Your task to perform on an android device: Open display settings Image 0: 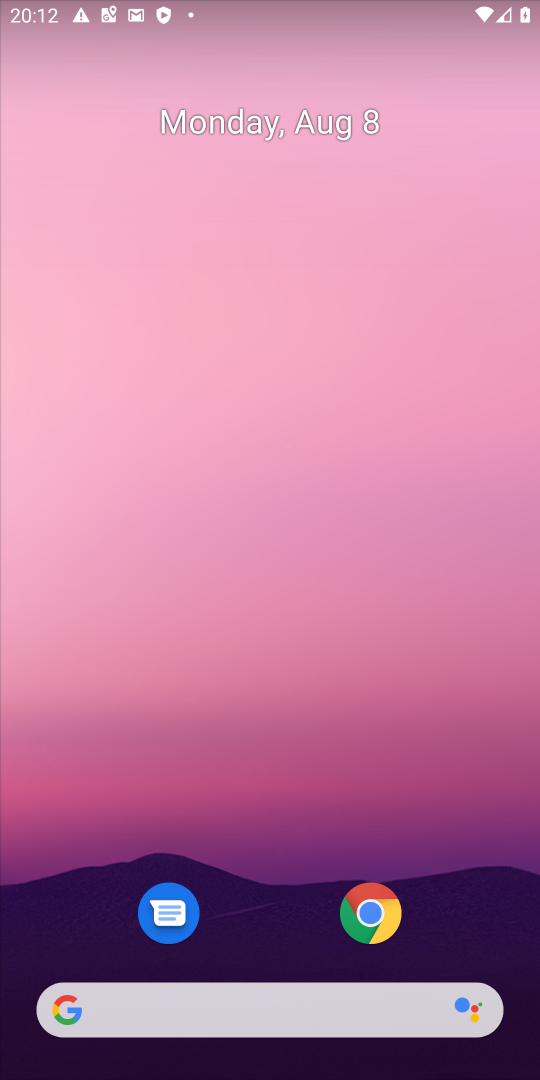
Step 0: press home button
Your task to perform on an android device: Open display settings Image 1: 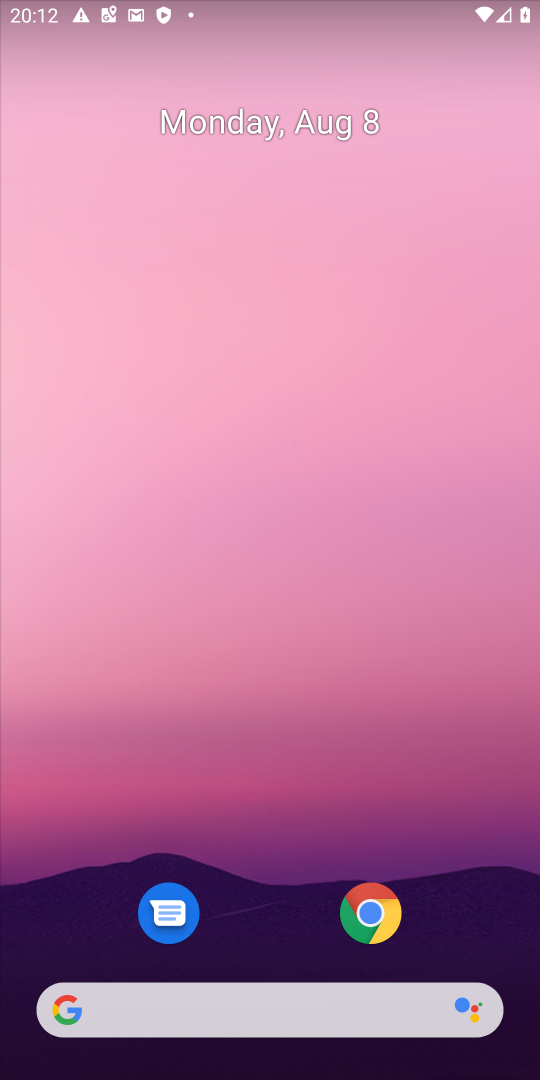
Step 1: drag from (209, 975) to (379, 281)
Your task to perform on an android device: Open display settings Image 2: 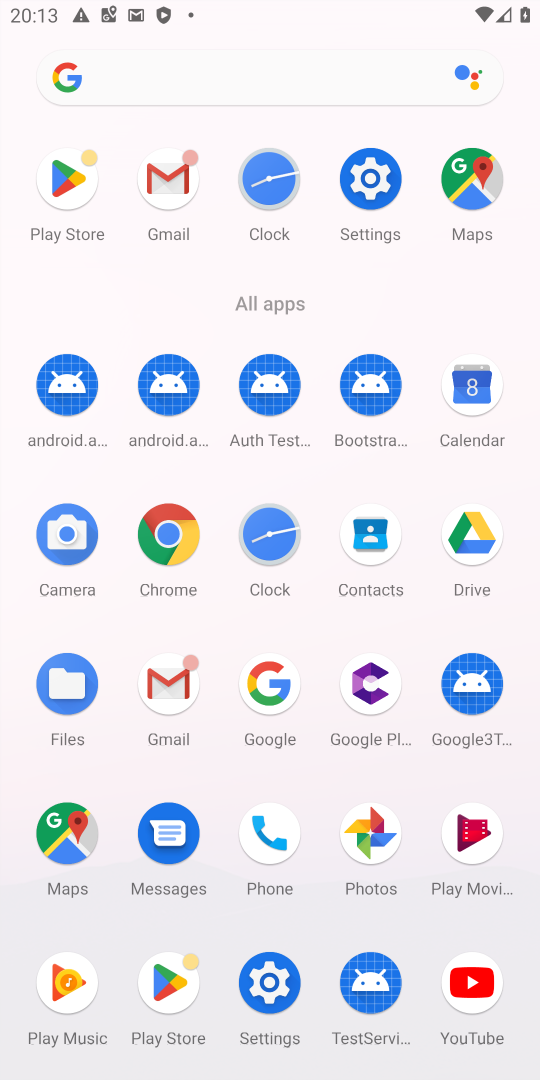
Step 2: click (248, 959)
Your task to perform on an android device: Open display settings Image 3: 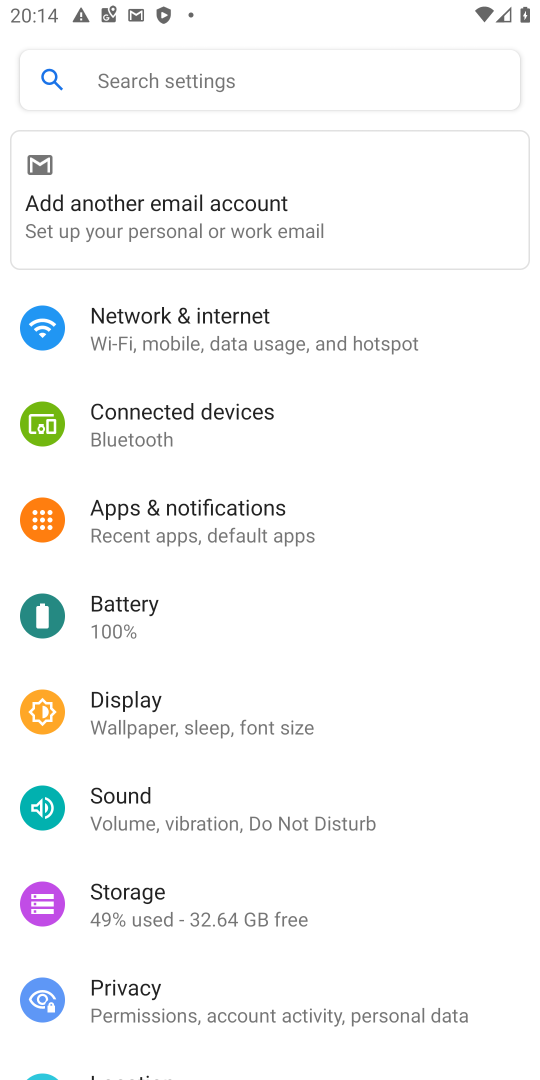
Step 3: click (148, 723)
Your task to perform on an android device: Open display settings Image 4: 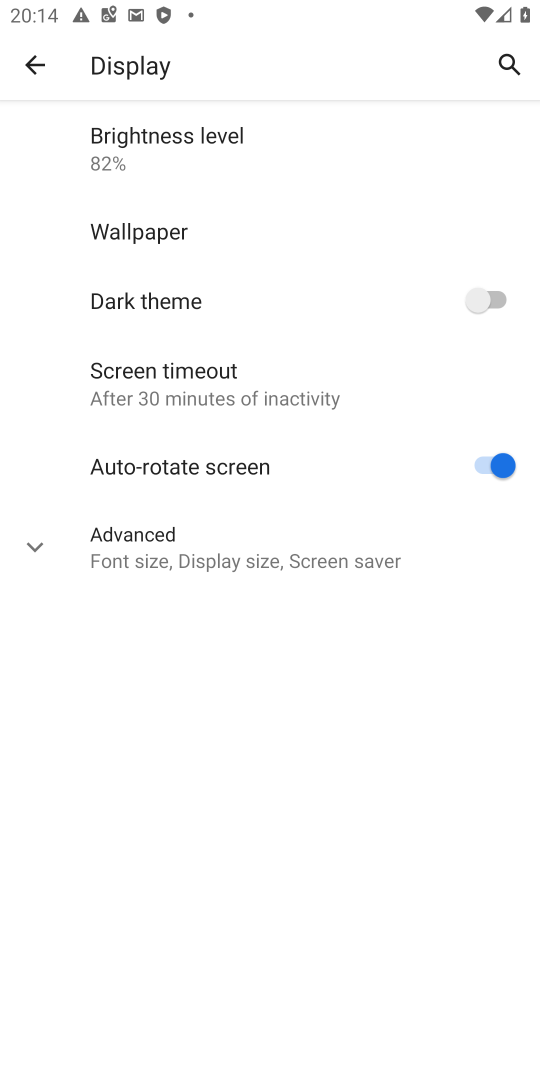
Step 4: task complete